Your task to perform on an android device: What's the weather? Image 0: 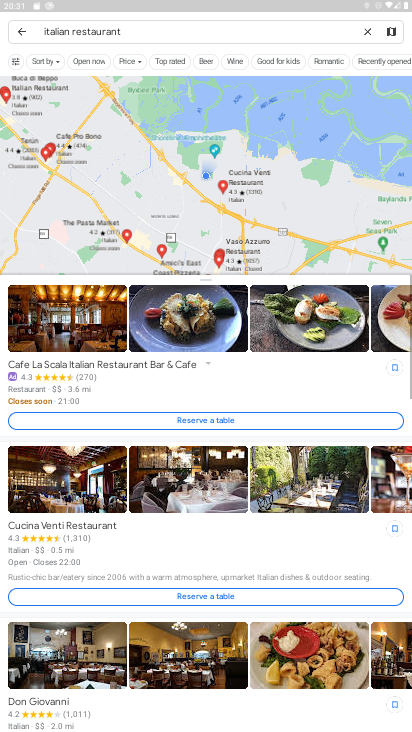
Step 0: press home button
Your task to perform on an android device: What's the weather? Image 1: 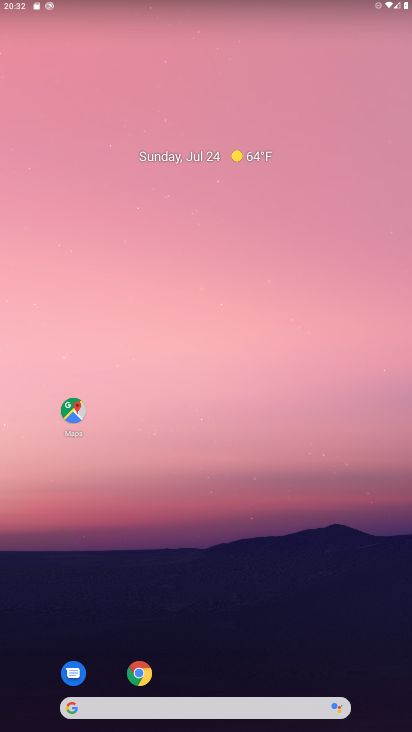
Step 1: click (255, 159)
Your task to perform on an android device: What's the weather? Image 2: 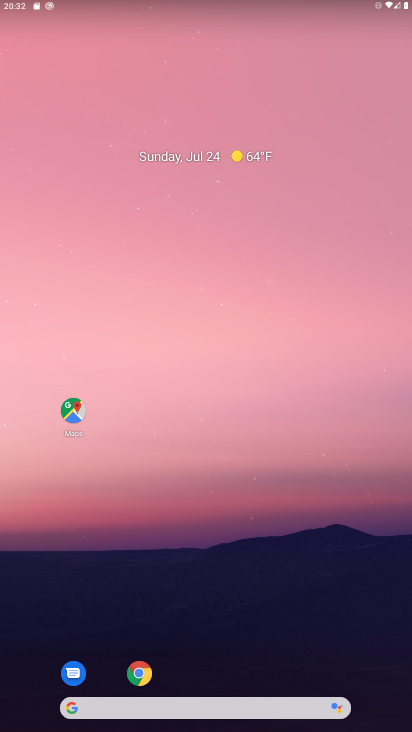
Step 2: click (255, 154)
Your task to perform on an android device: What's the weather? Image 3: 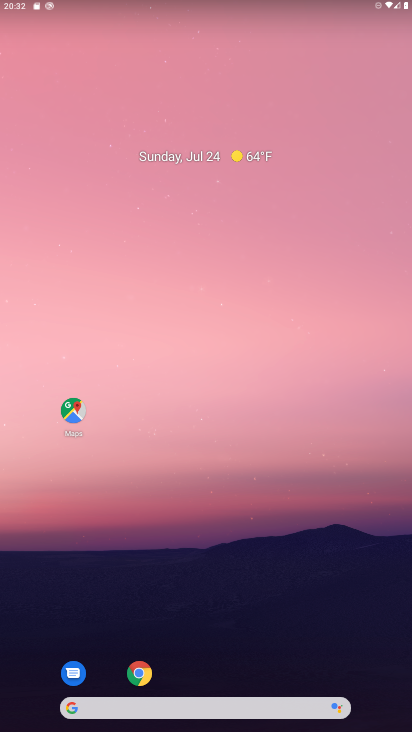
Step 3: click (254, 155)
Your task to perform on an android device: What's the weather? Image 4: 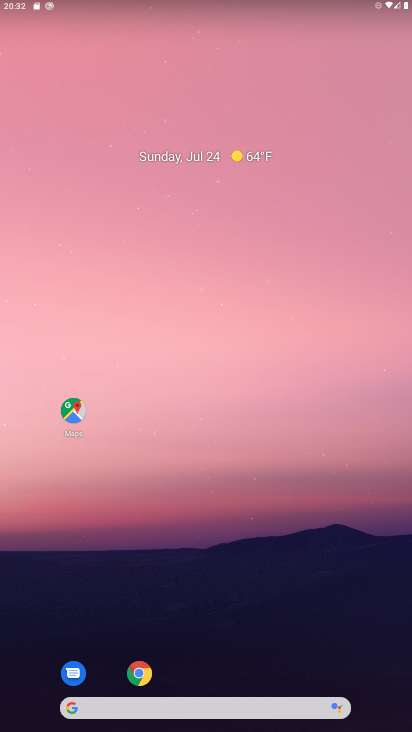
Step 4: drag from (10, 248) to (410, 197)
Your task to perform on an android device: What's the weather? Image 5: 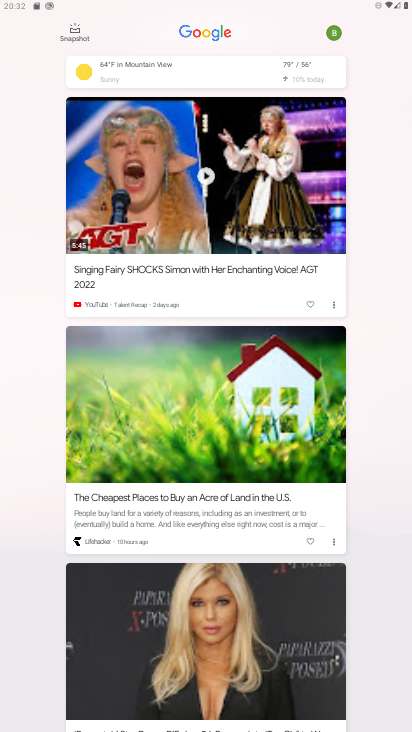
Step 5: click (306, 67)
Your task to perform on an android device: What's the weather? Image 6: 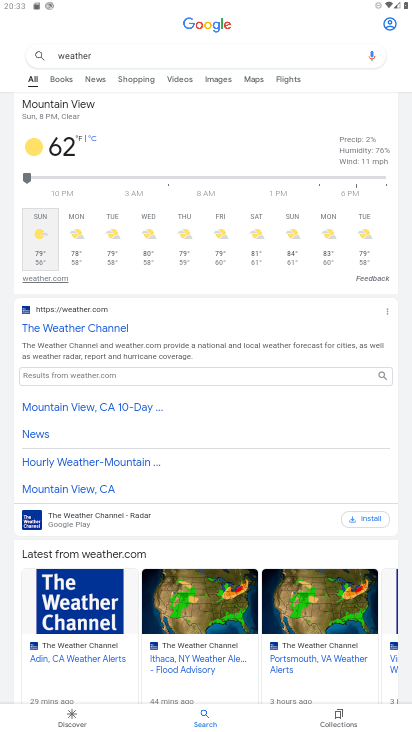
Step 6: task complete